Your task to perform on an android device: toggle pop-ups in chrome Image 0: 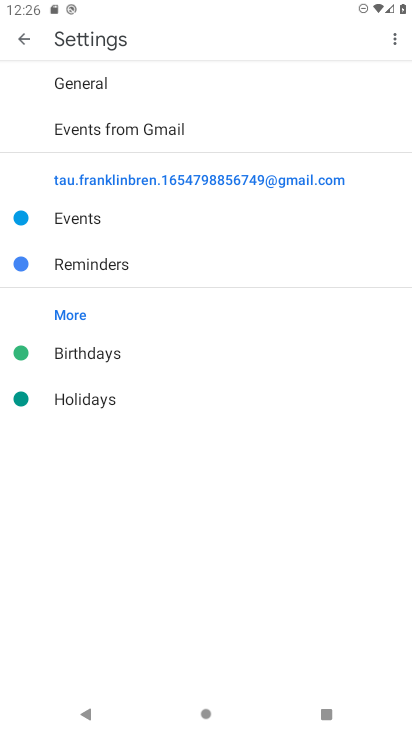
Step 0: press home button
Your task to perform on an android device: toggle pop-ups in chrome Image 1: 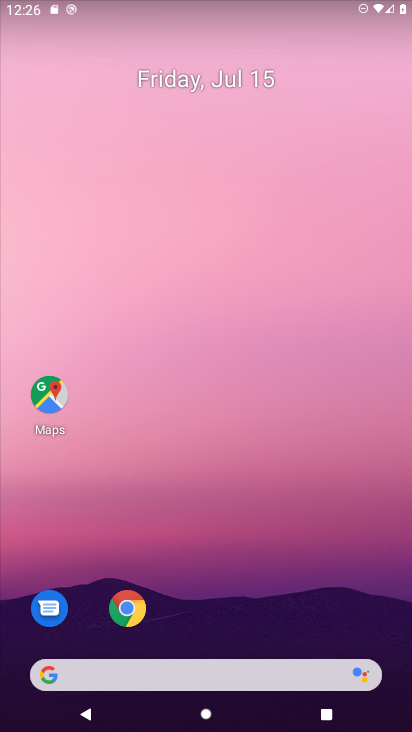
Step 1: drag from (250, 639) to (295, 57)
Your task to perform on an android device: toggle pop-ups in chrome Image 2: 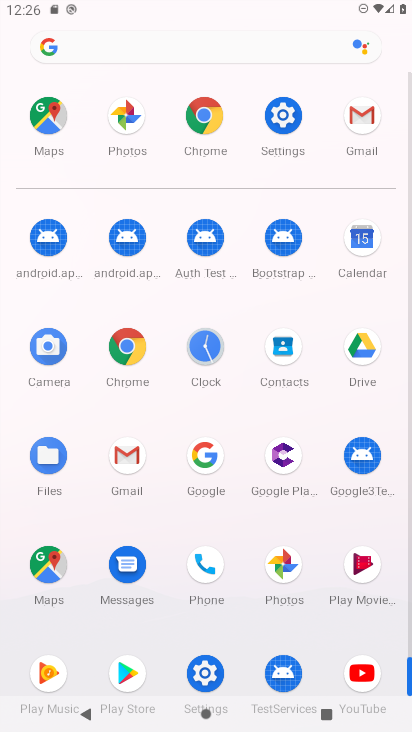
Step 2: click (130, 349)
Your task to perform on an android device: toggle pop-ups in chrome Image 3: 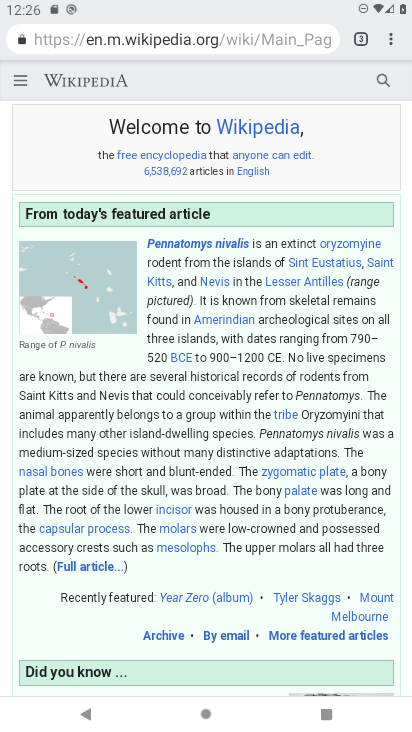
Step 3: drag from (387, 32) to (260, 470)
Your task to perform on an android device: toggle pop-ups in chrome Image 4: 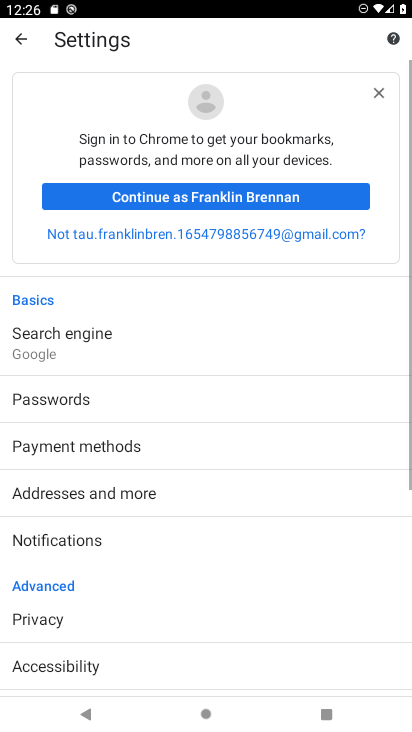
Step 4: drag from (218, 637) to (232, 184)
Your task to perform on an android device: toggle pop-ups in chrome Image 5: 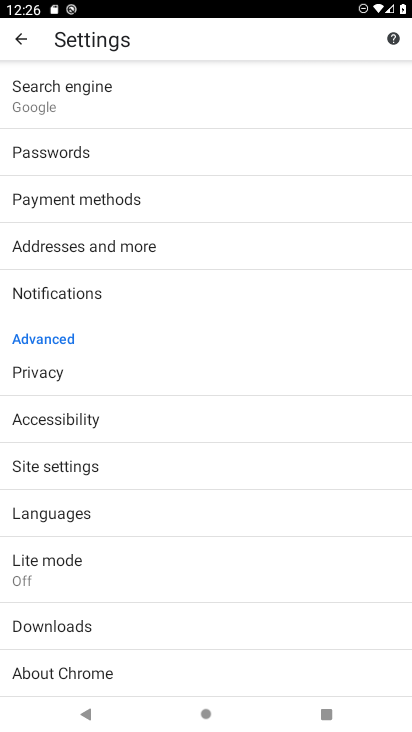
Step 5: click (87, 476)
Your task to perform on an android device: toggle pop-ups in chrome Image 6: 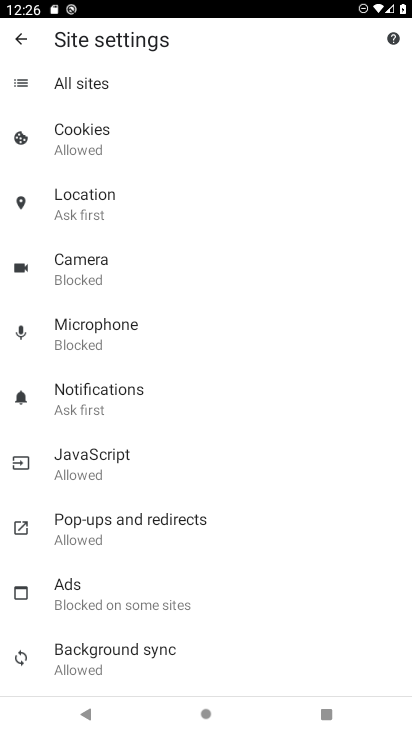
Step 6: click (158, 521)
Your task to perform on an android device: toggle pop-ups in chrome Image 7: 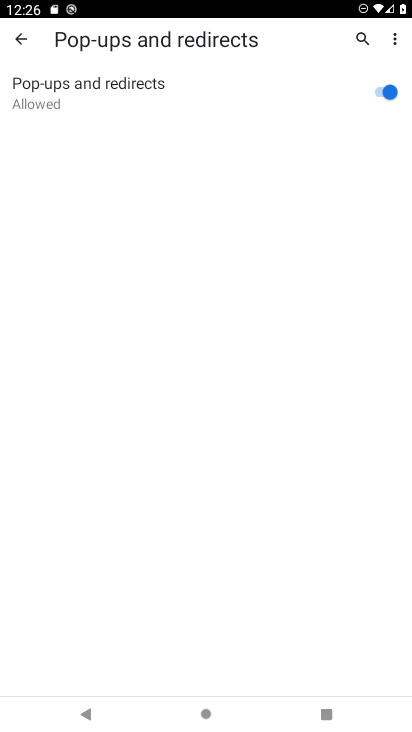
Step 7: click (382, 95)
Your task to perform on an android device: toggle pop-ups in chrome Image 8: 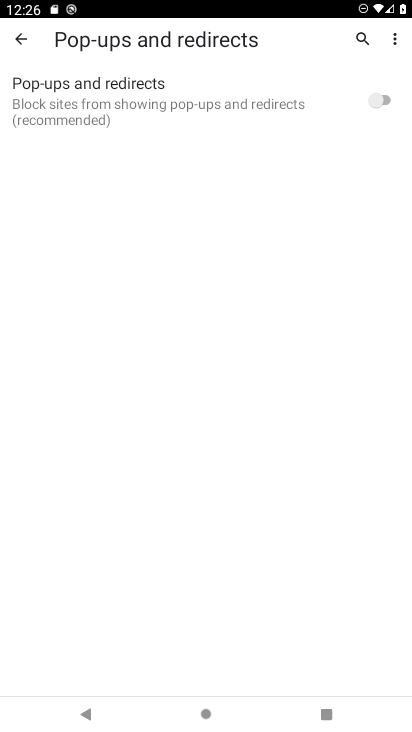
Step 8: task complete